Your task to perform on an android device: open sync settings in chrome Image 0: 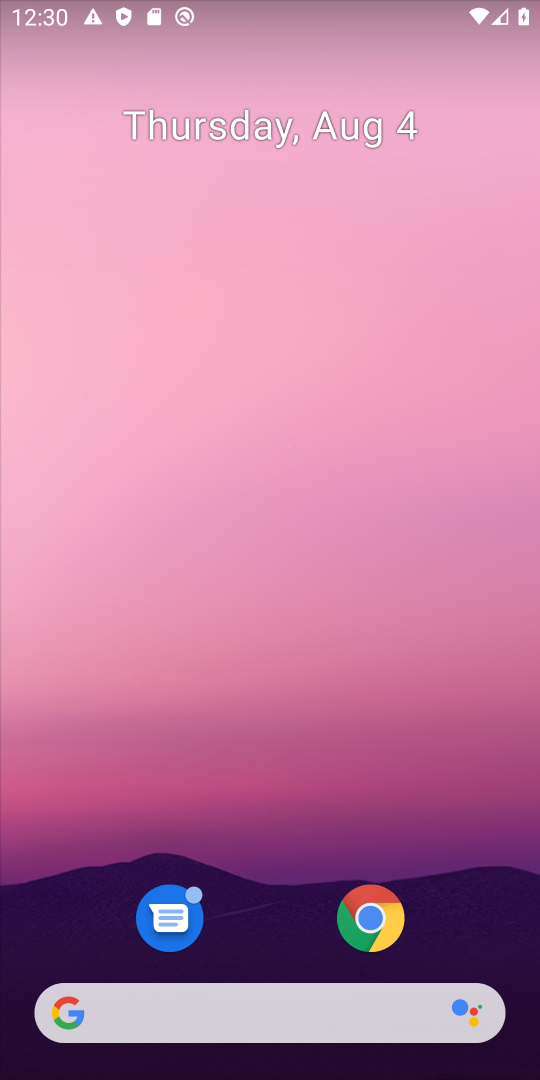
Step 0: click (372, 933)
Your task to perform on an android device: open sync settings in chrome Image 1: 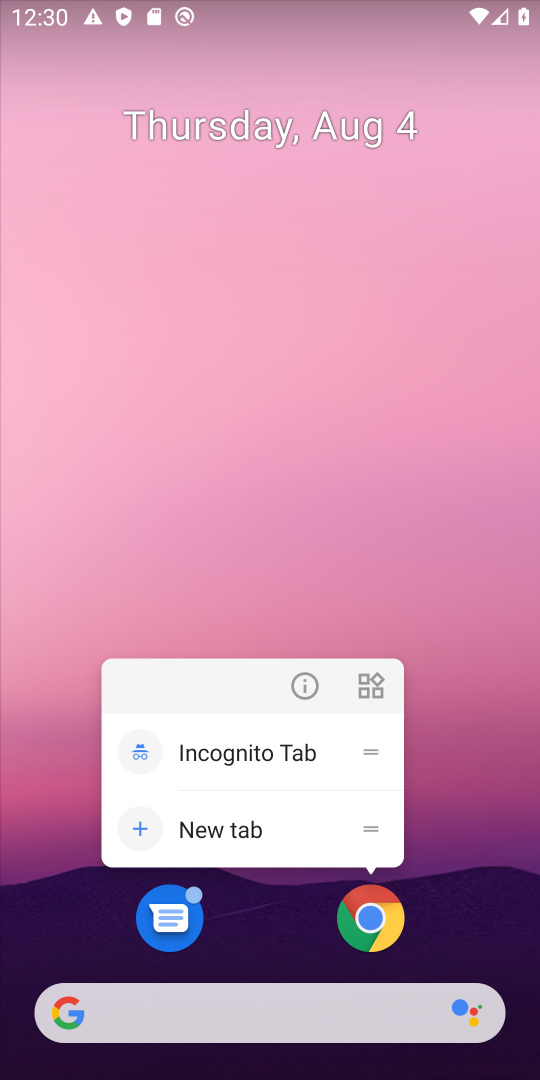
Step 1: click (386, 896)
Your task to perform on an android device: open sync settings in chrome Image 2: 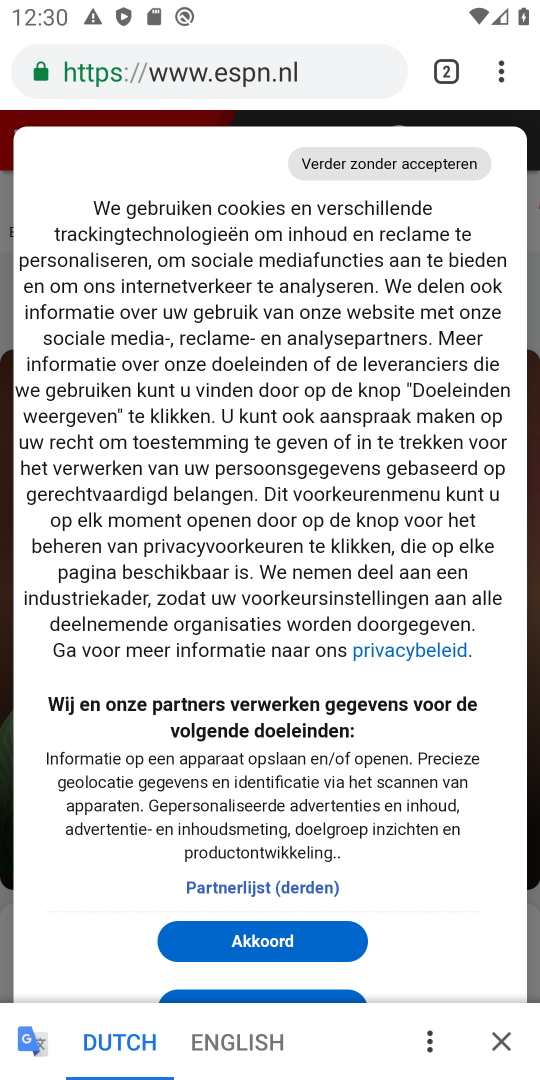
Step 2: click (507, 68)
Your task to perform on an android device: open sync settings in chrome Image 3: 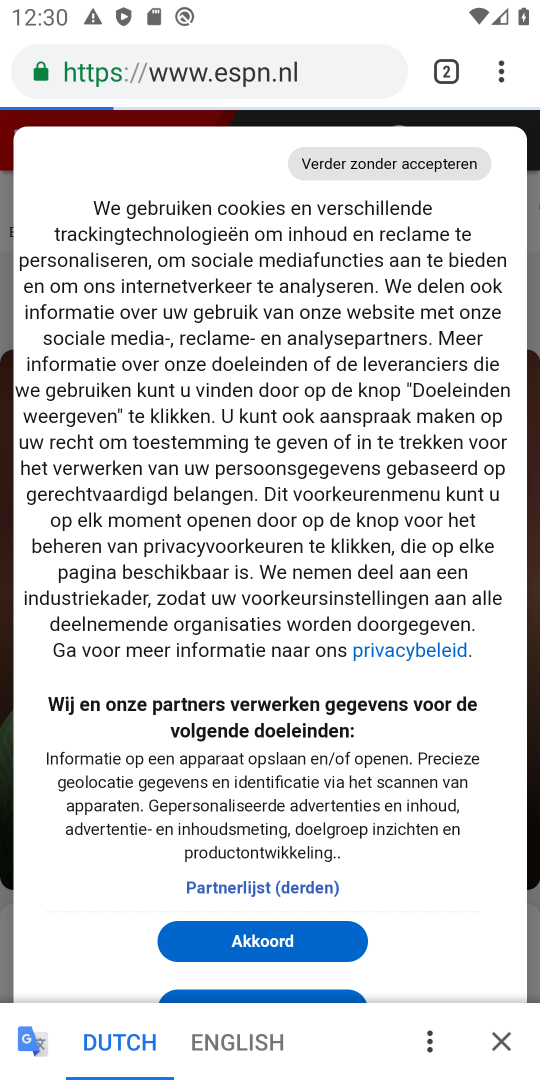
Step 3: drag from (507, 68) to (275, 885)
Your task to perform on an android device: open sync settings in chrome Image 4: 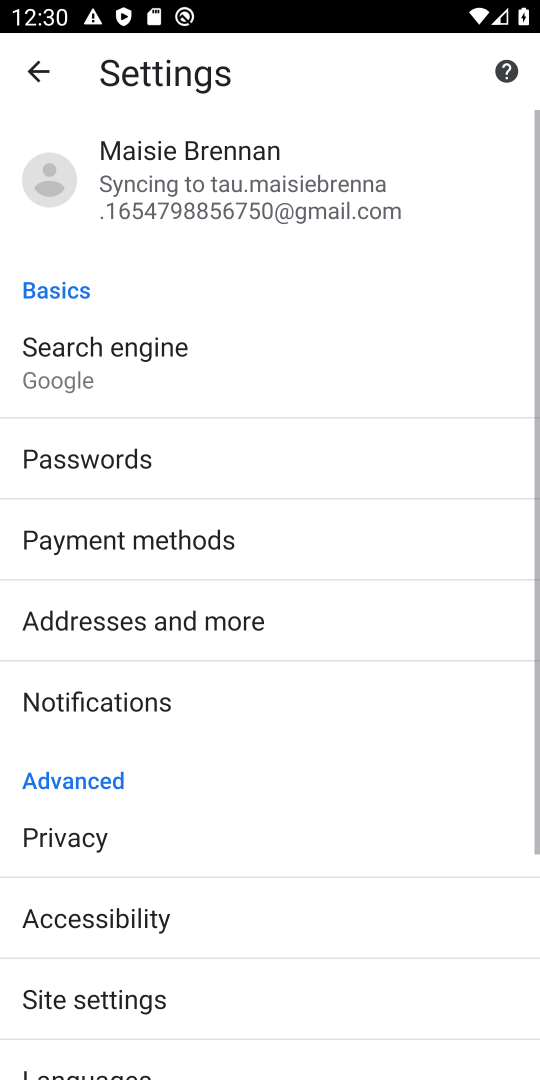
Step 4: click (220, 202)
Your task to perform on an android device: open sync settings in chrome Image 5: 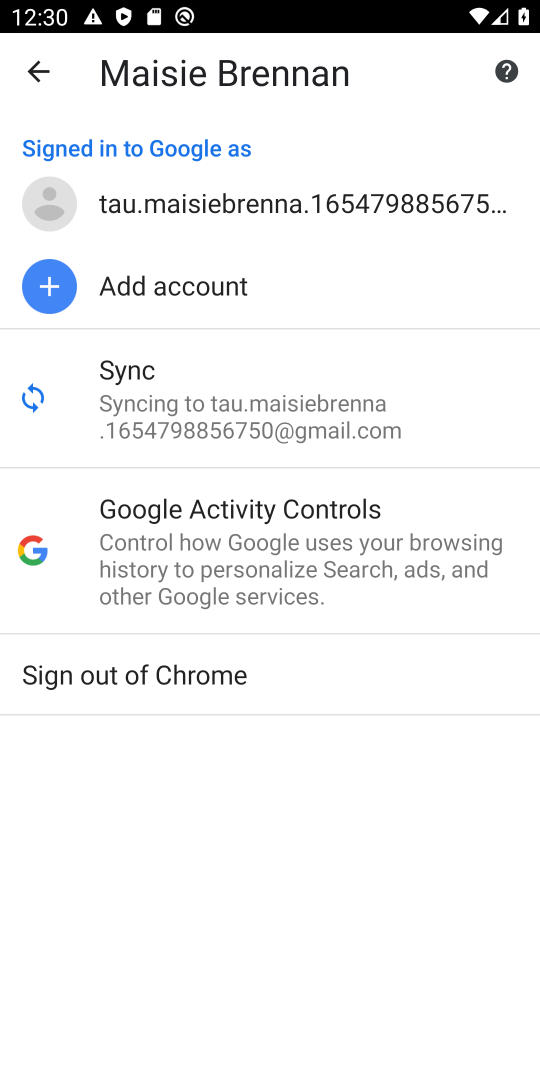
Step 5: click (184, 382)
Your task to perform on an android device: open sync settings in chrome Image 6: 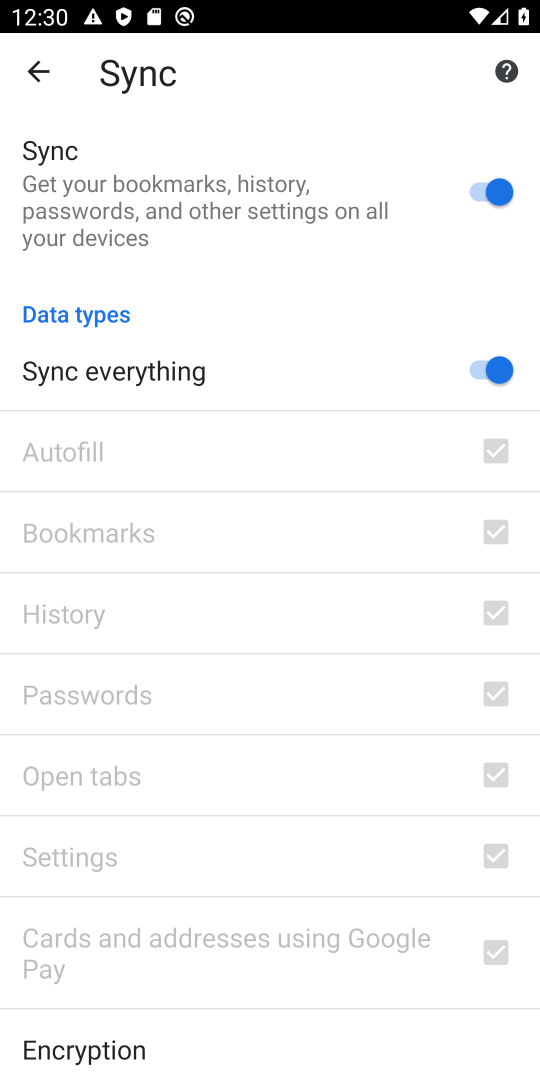
Step 6: task complete